Your task to perform on an android device: see creations saved in the google photos Image 0: 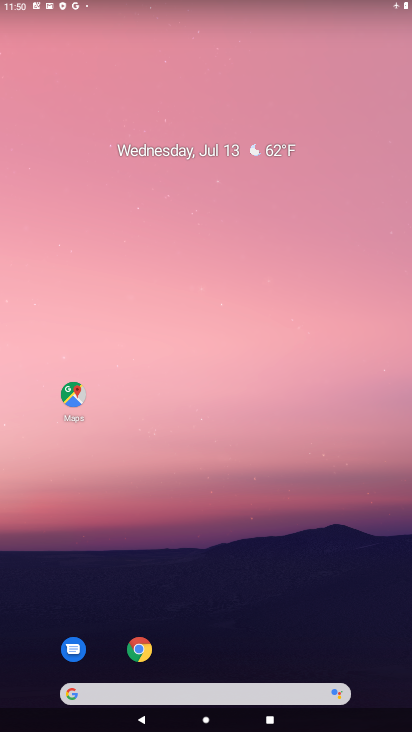
Step 0: drag from (380, 653) to (246, 25)
Your task to perform on an android device: see creations saved in the google photos Image 1: 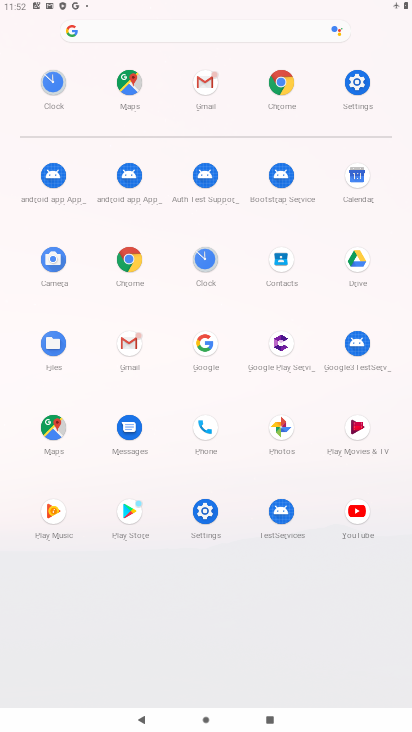
Step 1: click (269, 418)
Your task to perform on an android device: see creations saved in the google photos Image 2: 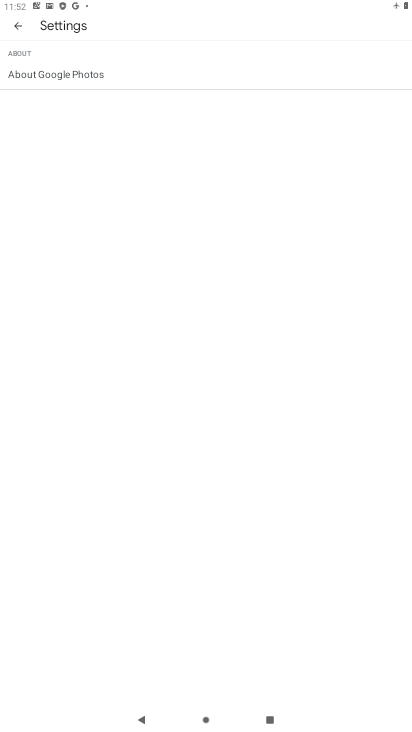
Step 2: press back button
Your task to perform on an android device: see creations saved in the google photos Image 3: 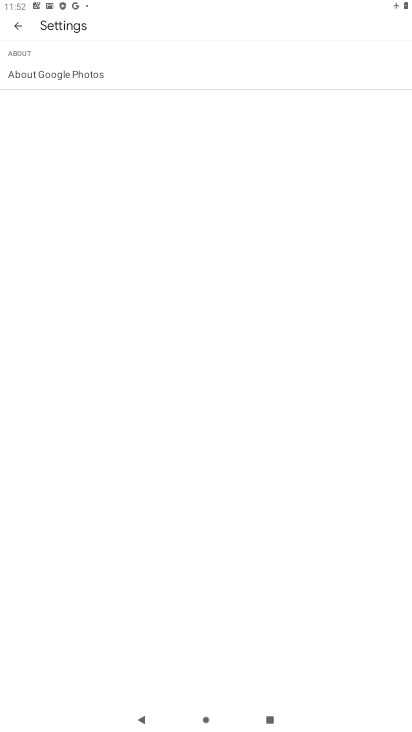
Step 3: press back button
Your task to perform on an android device: see creations saved in the google photos Image 4: 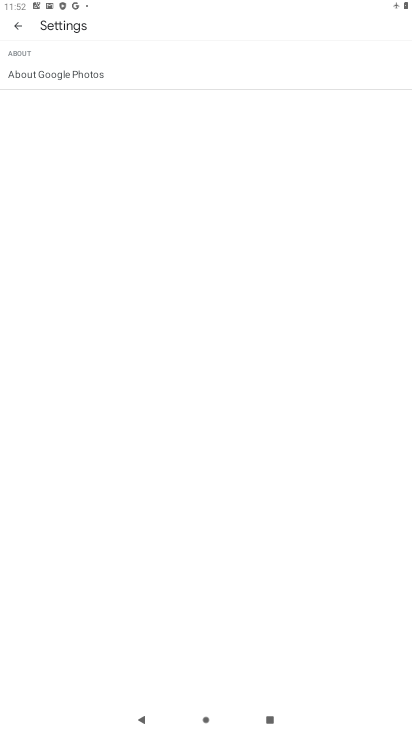
Step 4: click (17, 24)
Your task to perform on an android device: see creations saved in the google photos Image 5: 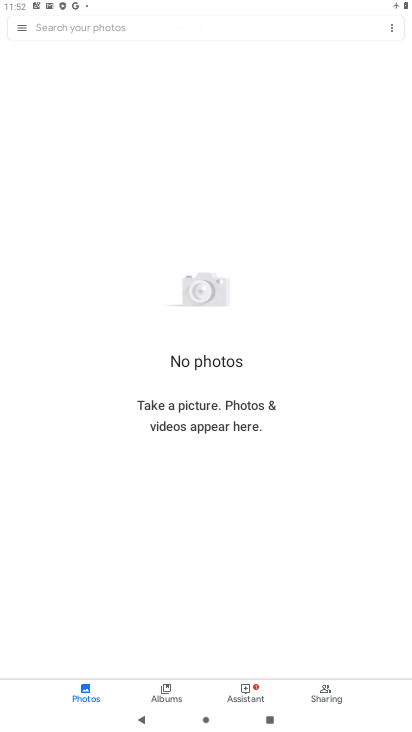
Step 5: click (177, 32)
Your task to perform on an android device: see creations saved in the google photos Image 6: 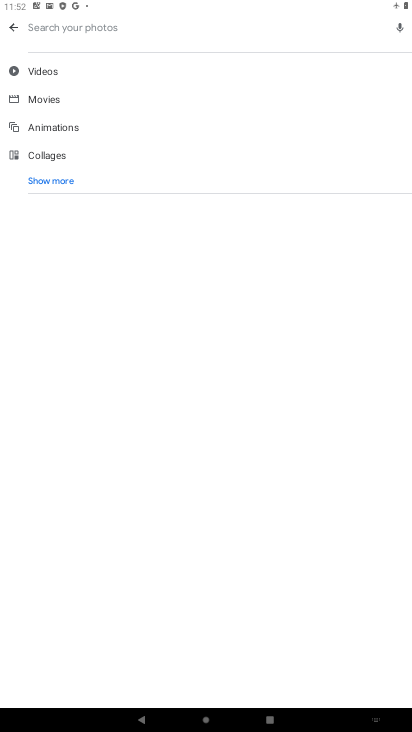
Step 6: click (51, 180)
Your task to perform on an android device: see creations saved in the google photos Image 7: 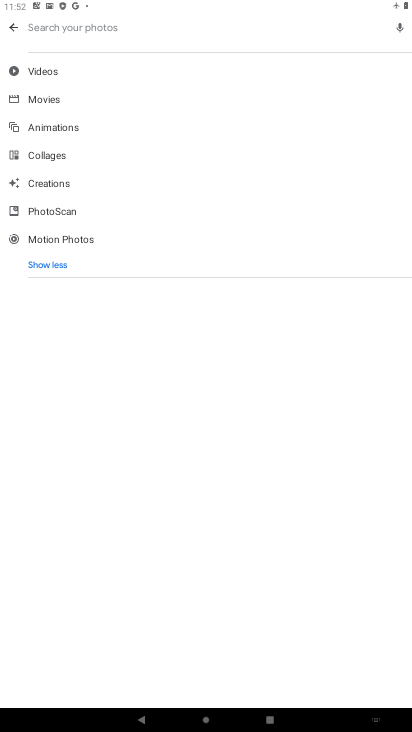
Step 7: click (44, 185)
Your task to perform on an android device: see creations saved in the google photos Image 8: 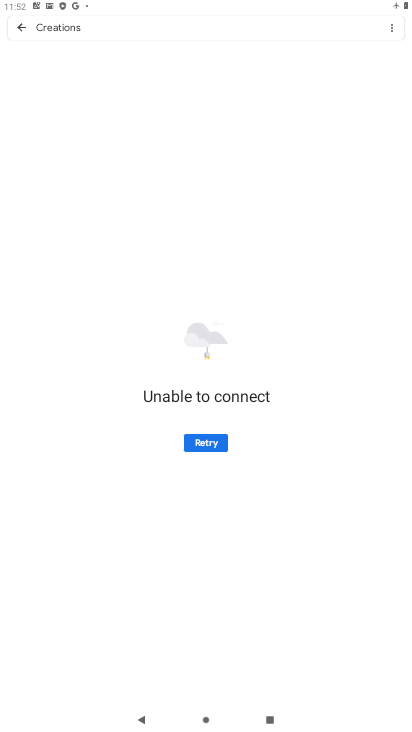
Step 8: task complete